Your task to perform on an android device: What's the weather? Image 0: 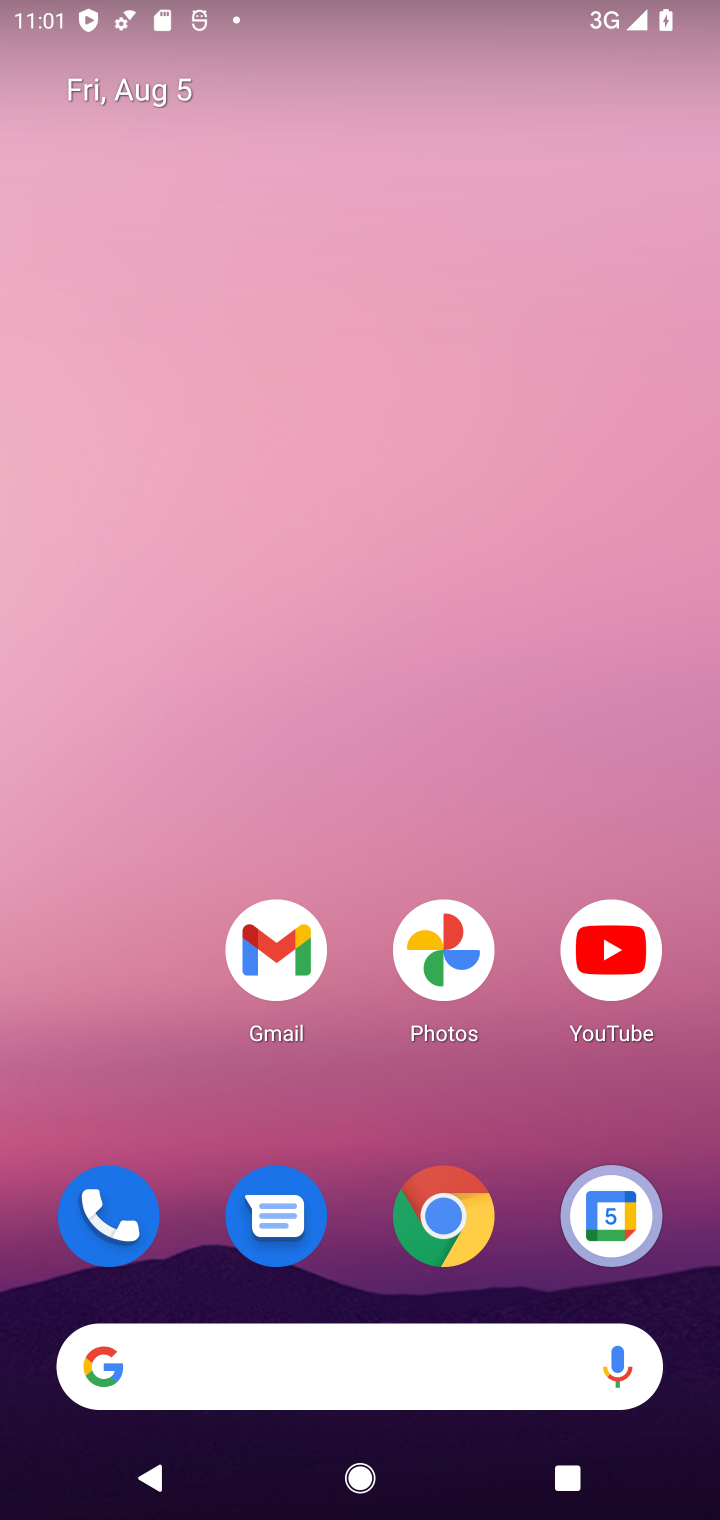
Step 0: drag from (318, 1369) to (194, 111)
Your task to perform on an android device: What's the weather? Image 1: 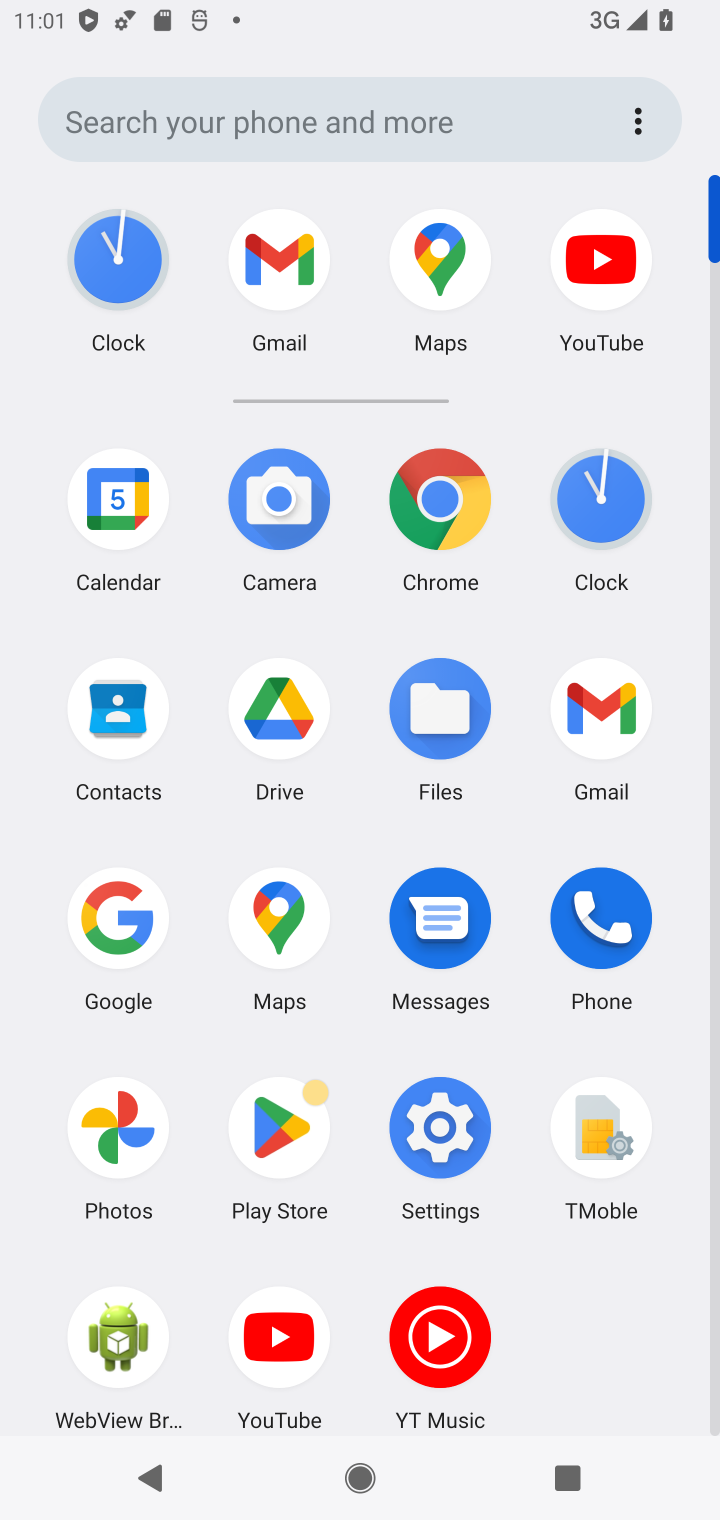
Step 1: click (443, 519)
Your task to perform on an android device: What's the weather? Image 2: 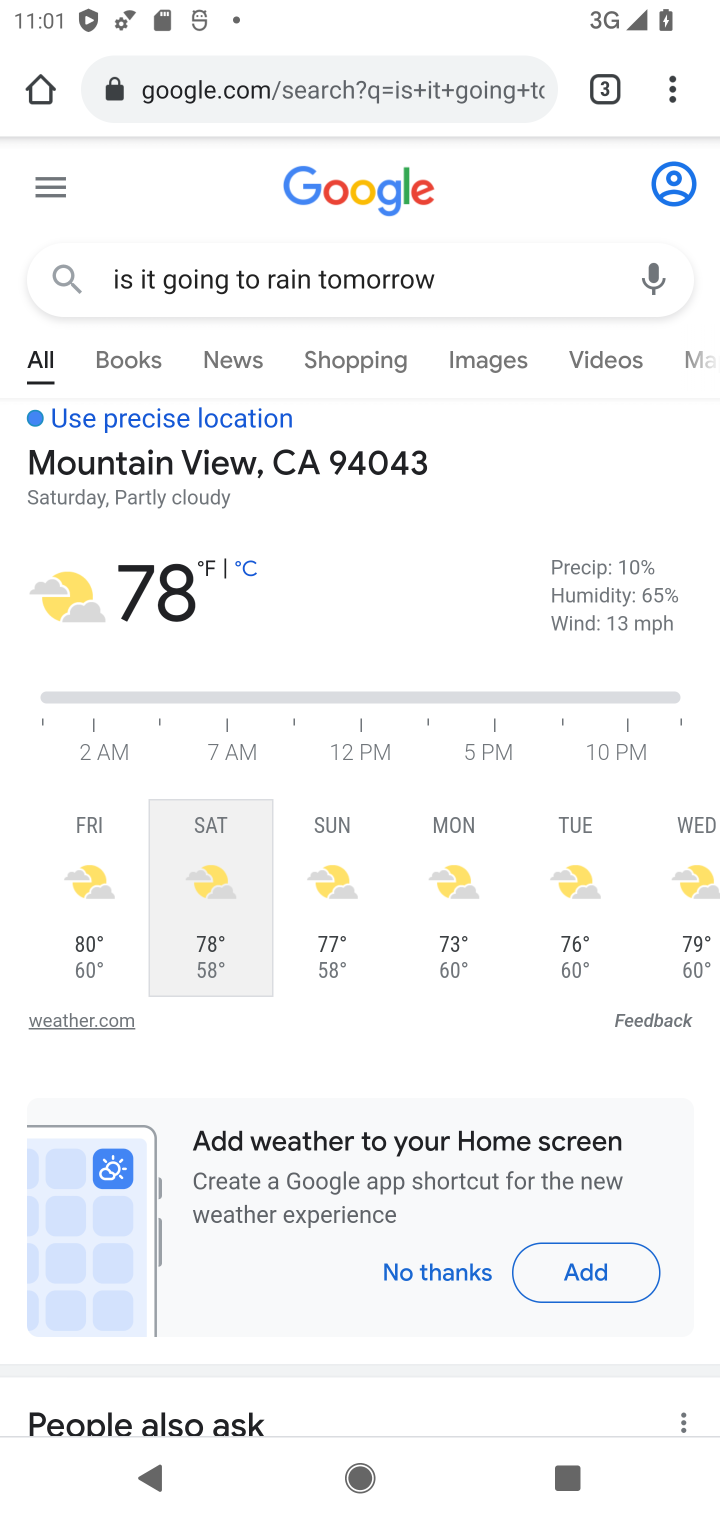
Step 2: click (336, 95)
Your task to perform on an android device: What's the weather? Image 3: 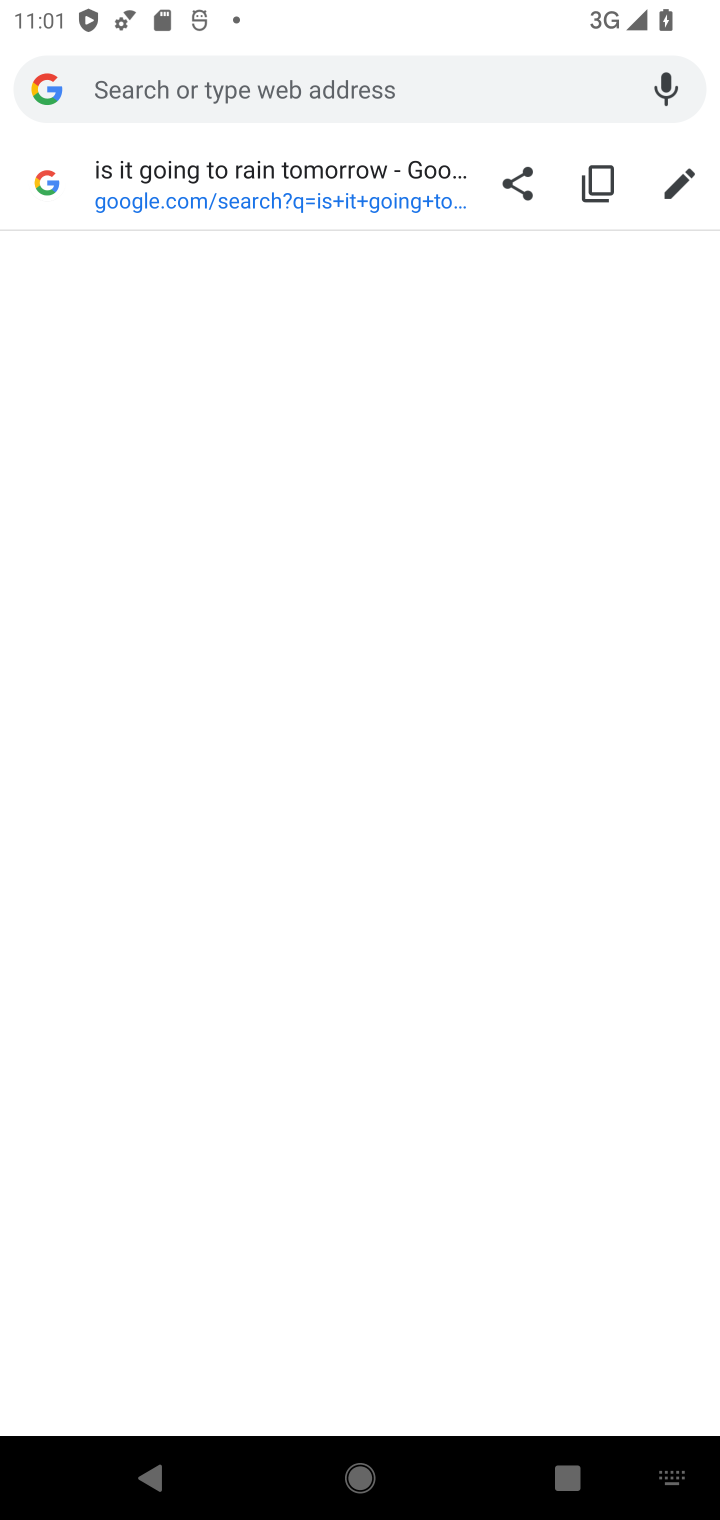
Step 3: type "whats the weather"
Your task to perform on an android device: What's the weather? Image 4: 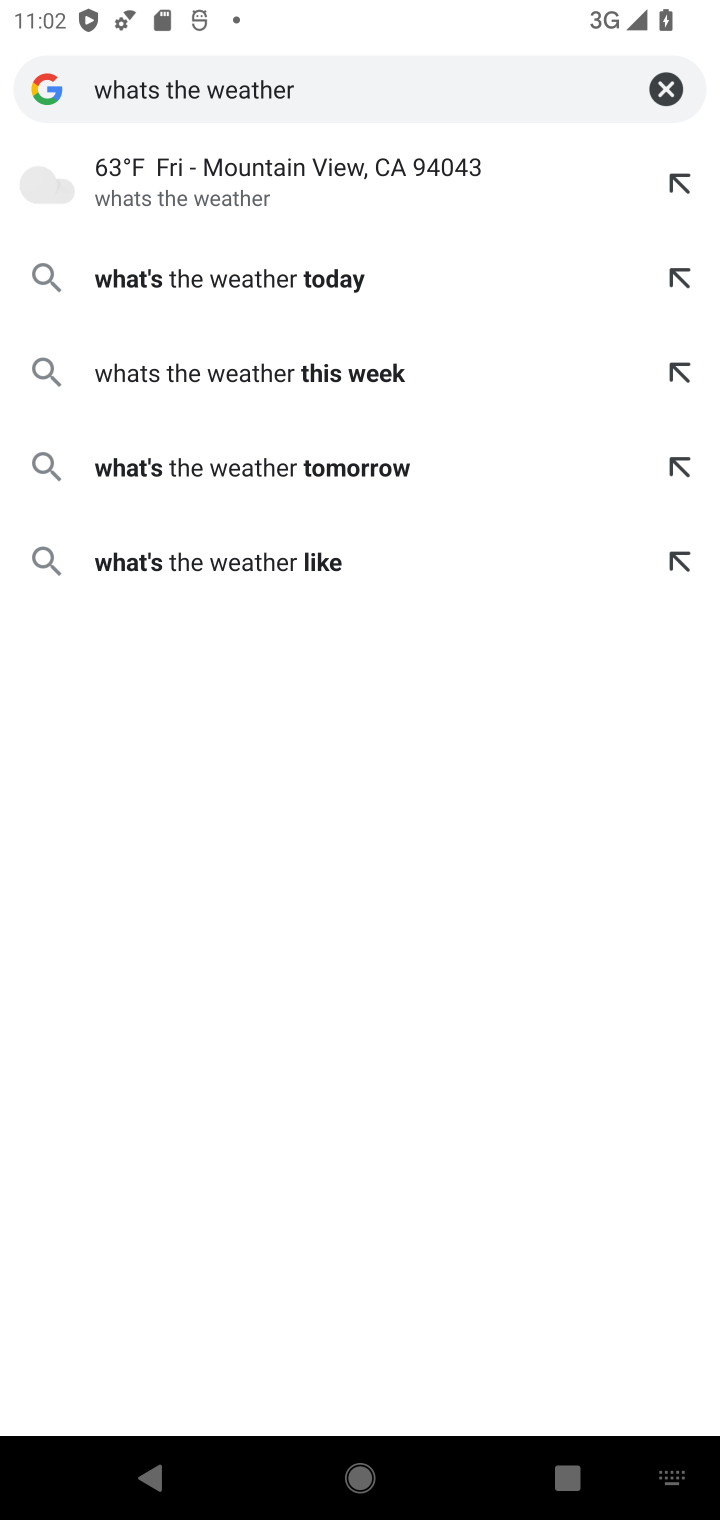
Step 4: click (228, 198)
Your task to perform on an android device: What's the weather? Image 5: 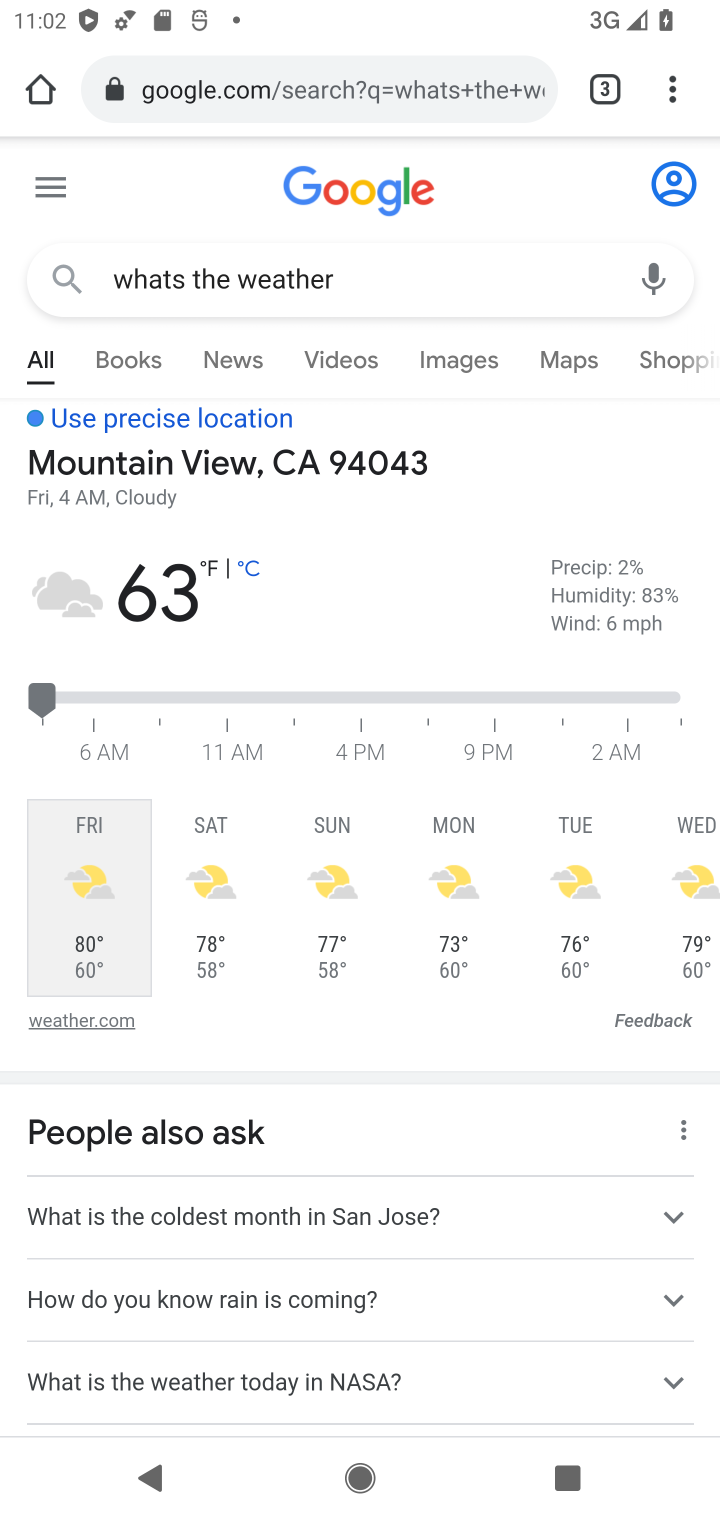
Step 5: task complete